Your task to perform on an android device: Go to network settings Image 0: 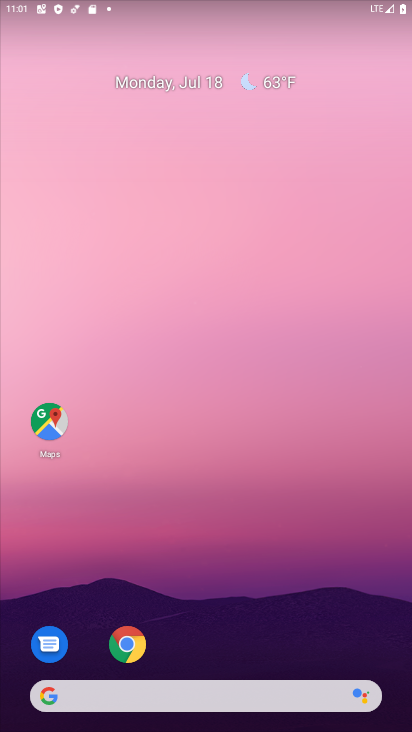
Step 0: drag from (257, 631) to (184, 77)
Your task to perform on an android device: Go to network settings Image 1: 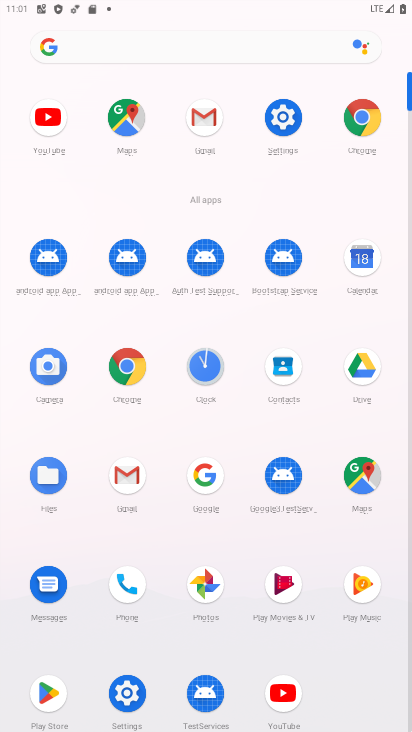
Step 1: click (277, 110)
Your task to perform on an android device: Go to network settings Image 2: 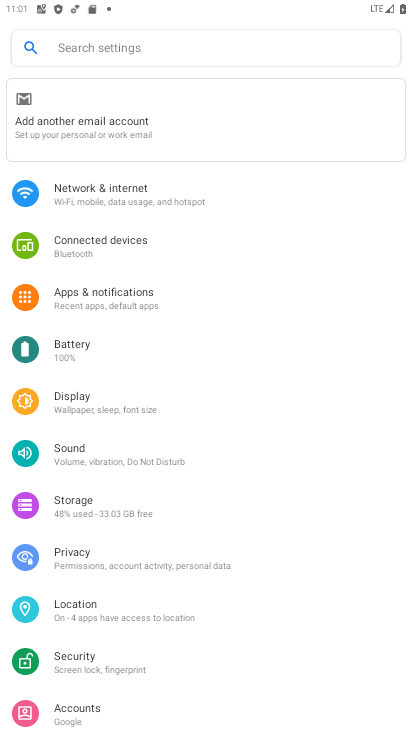
Step 2: click (126, 201)
Your task to perform on an android device: Go to network settings Image 3: 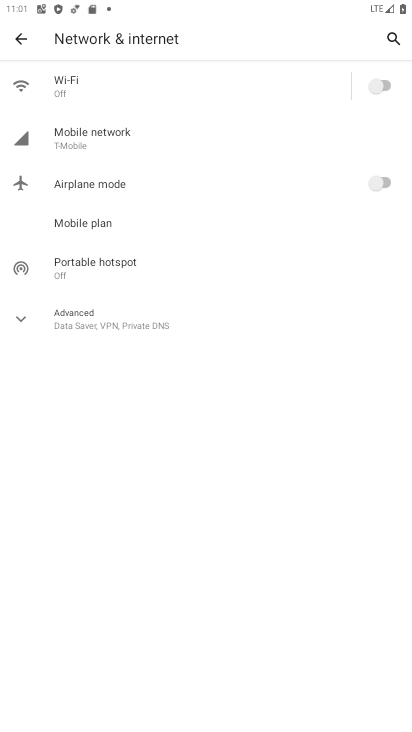
Step 3: click (149, 133)
Your task to perform on an android device: Go to network settings Image 4: 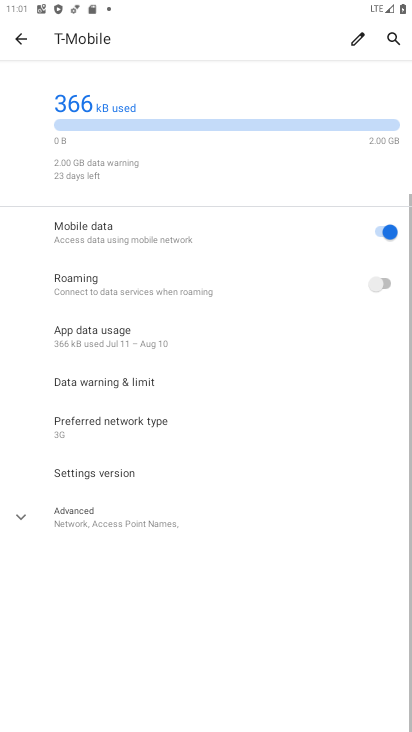
Step 4: task complete